Your task to perform on an android device: turn off javascript in the chrome app Image 0: 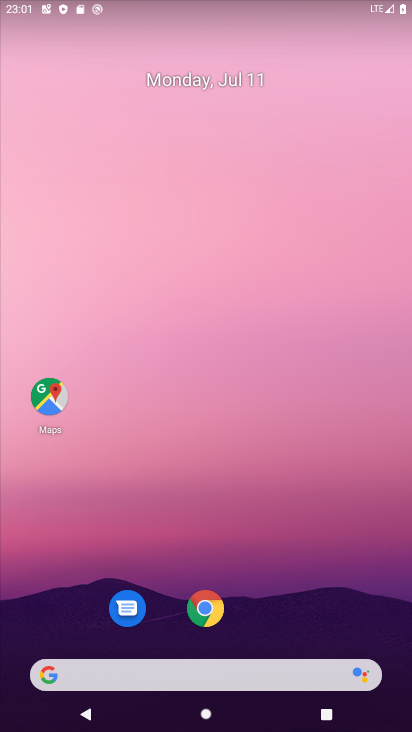
Step 0: click (221, 598)
Your task to perform on an android device: turn off javascript in the chrome app Image 1: 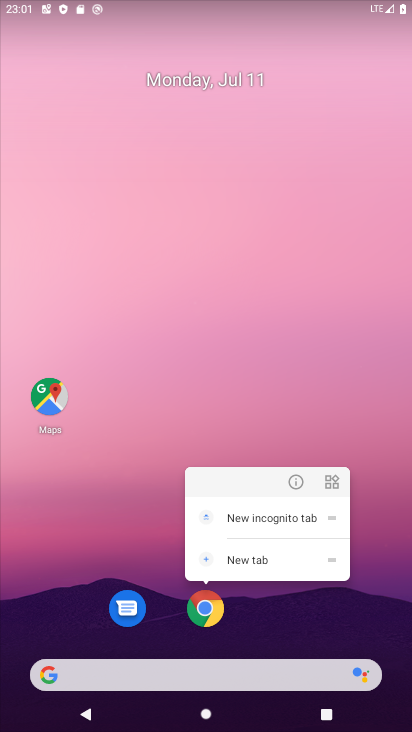
Step 1: click (210, 610)
Your task to perform on an android device: turn off javascript in the chrome app Image 2: 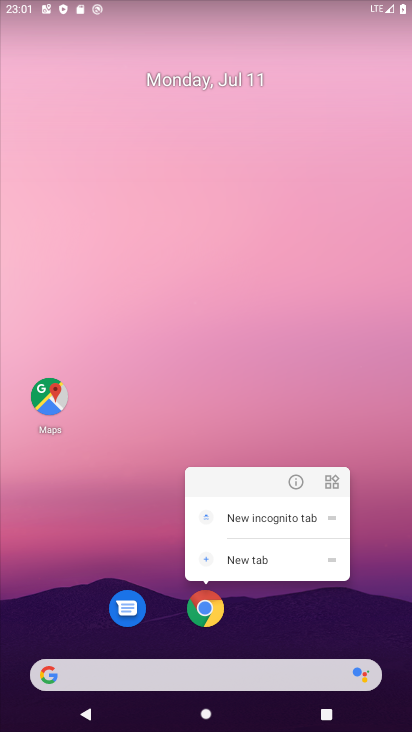
Step 2: click (205, 630)
Your task to perform on an android device: turn off javascript in the chrome app Image 3: 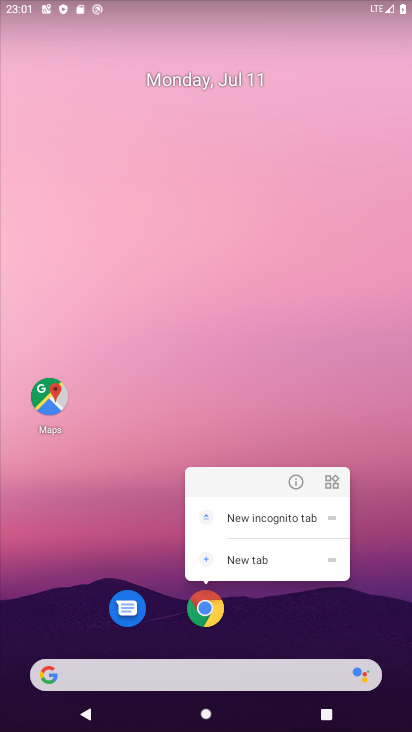
Step 3: click (203, 620)
Your task to perform on an android device: turn off javascript in the chrome app Image 4: 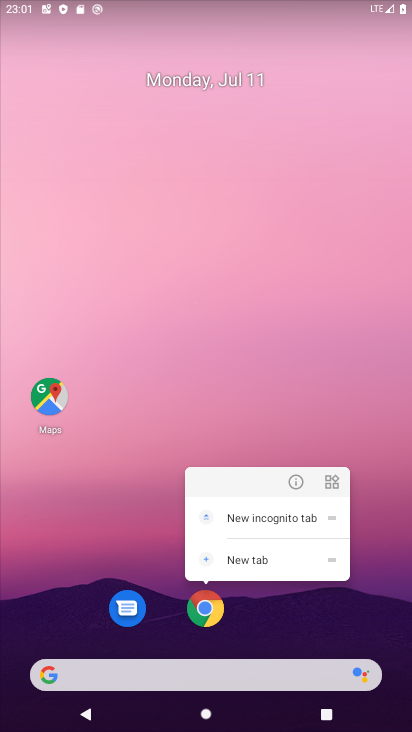
Step 4: click (203, 619)
Your task to perform on an android device: turn off javascript in the chrome app Image 5: 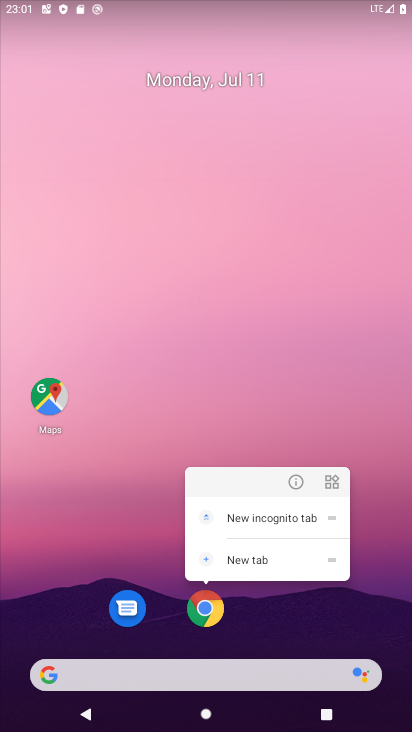
Step 5: click (199, 599)
Your task to perform on an android device: turn off javascript in the chrome app Image 6: 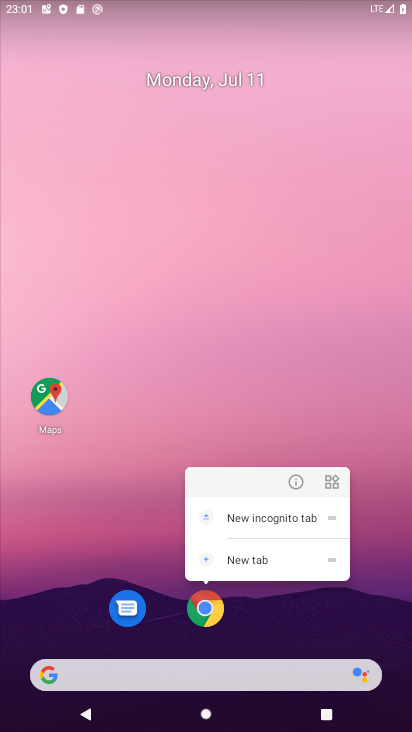
Step 6: click (199, 606)
Your task to perform on an android device: turn off javascript in the chrome app Image 7: 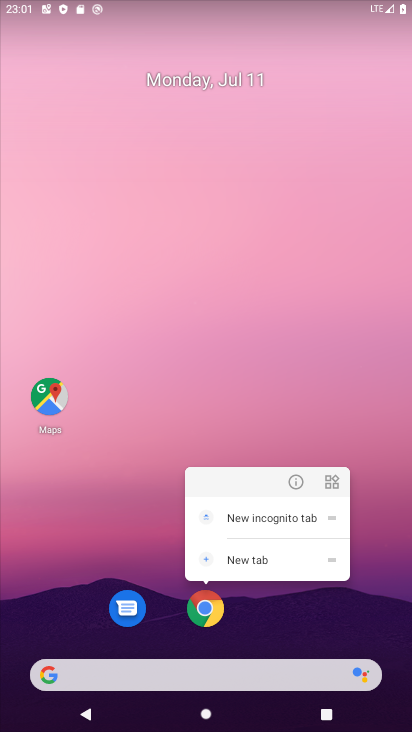
Step 7: click (192, 617)
Your task to perform on an android device: turn off javascript in the chrome app Image 8: 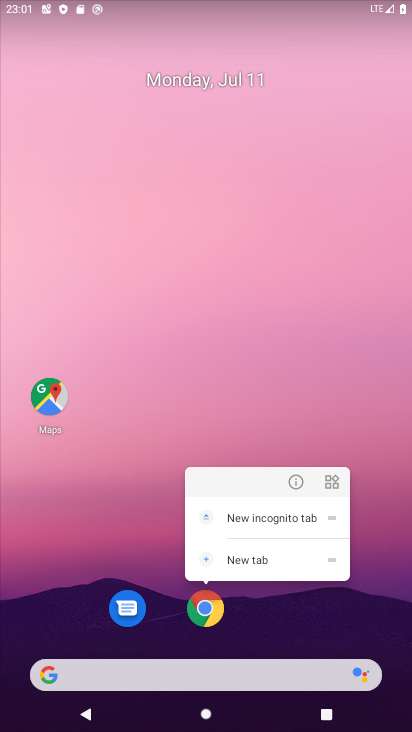
Step 8: task complete